Your task to perform on an android device: toggle translation in the chrome app Image 0: 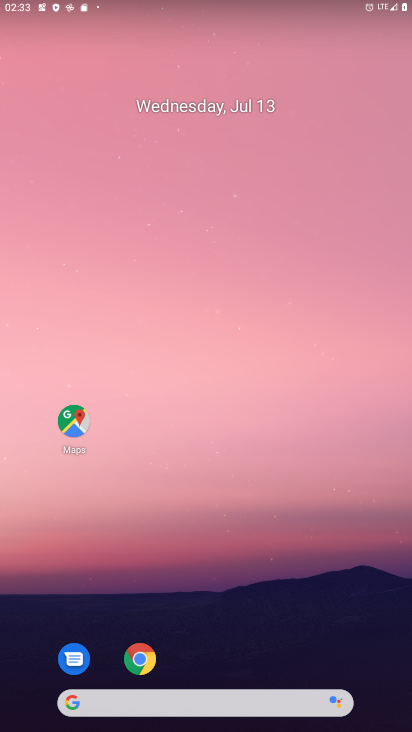
Step 0: click (141, 656)
Your task to perform on an android device: toggle translation in the chrome app Image 1: 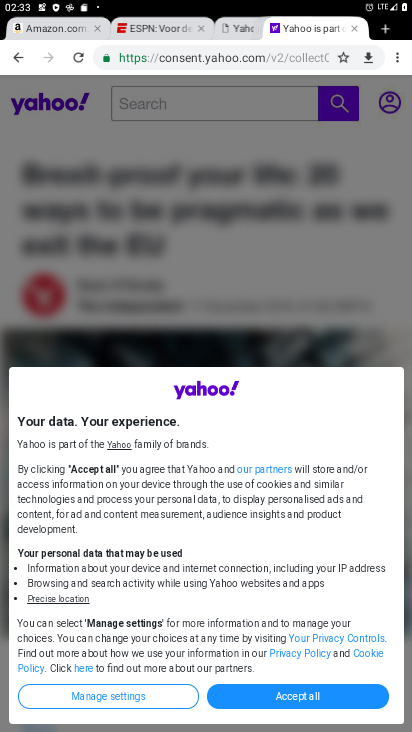
Step 1: click (396, 61)
Your task to perform on an android device: toggle translation in the chrome app Image 2: 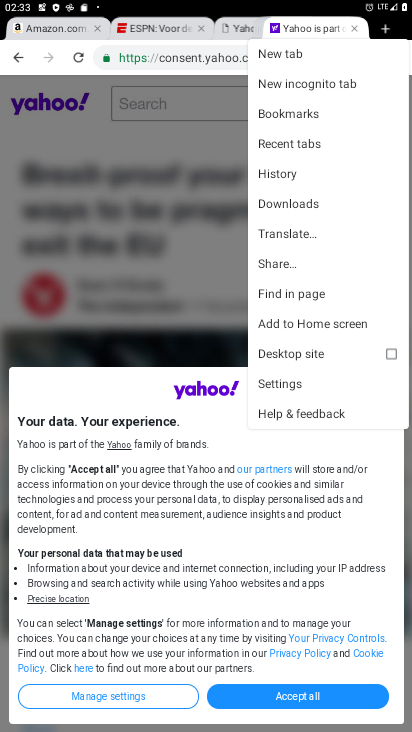
Step 2: click (286, 378)
Your task to perform on an android device: toggle translation in the chrome app Image 3: 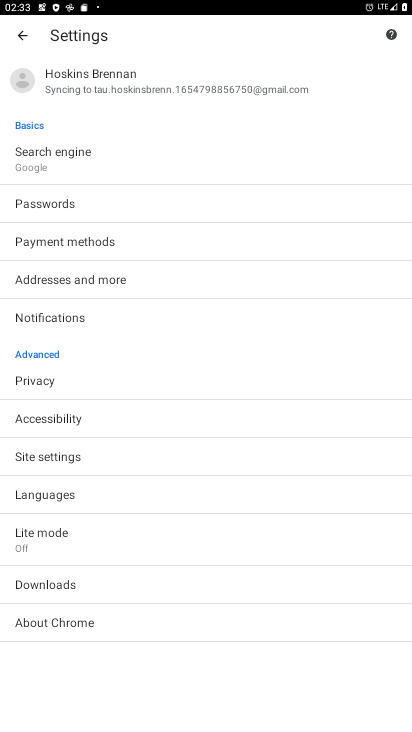
Step 3: click (60, 492)
Your task to perform on an android device: toggle translation in the chrome app Image 4: 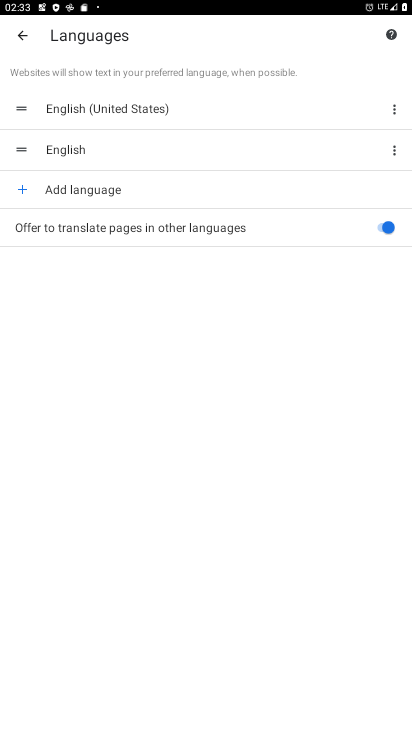
Step 4: click (378, 229)
Your task to perform on an android device: toggle translation in the chrome app Image 5: 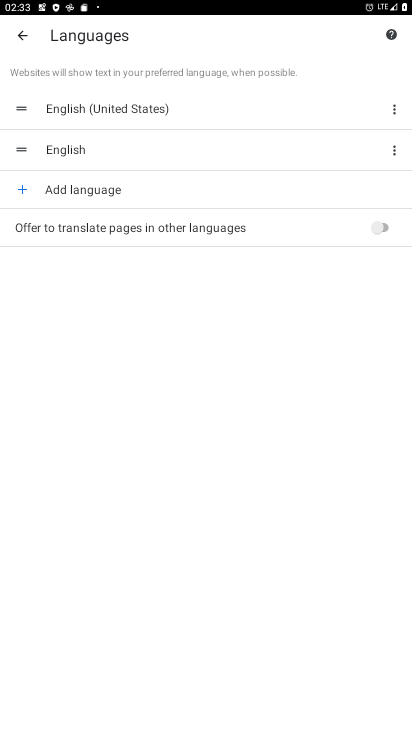
Step 5: task complete